Your task to perform on an android device: turn vacation reply on in the gmail app Image 0: 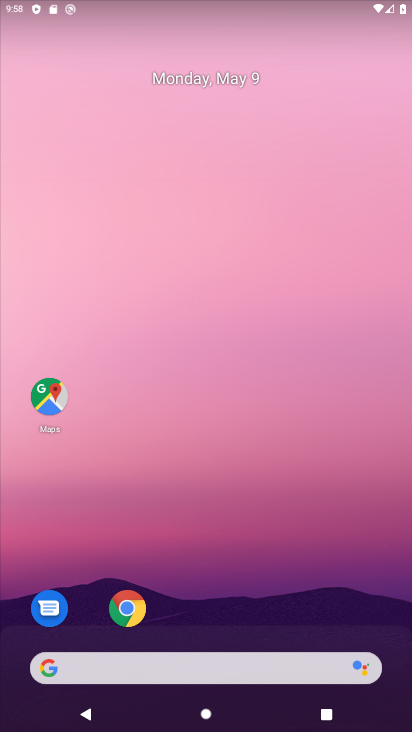
Step 0: drag from (224, 617) to (211, 51)
Your task to perform on an android device: turn vacation reply on in the gmail app Image 1: 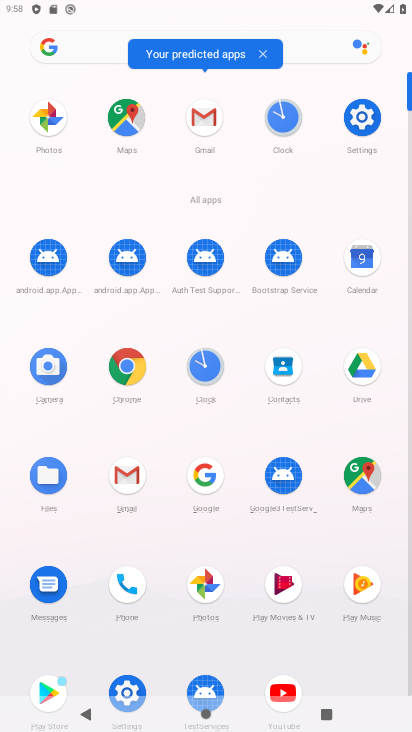
Step 1: click (209, 134)
Your task to perform on an android device: turn vacation reply on in the gmail app Image 2: 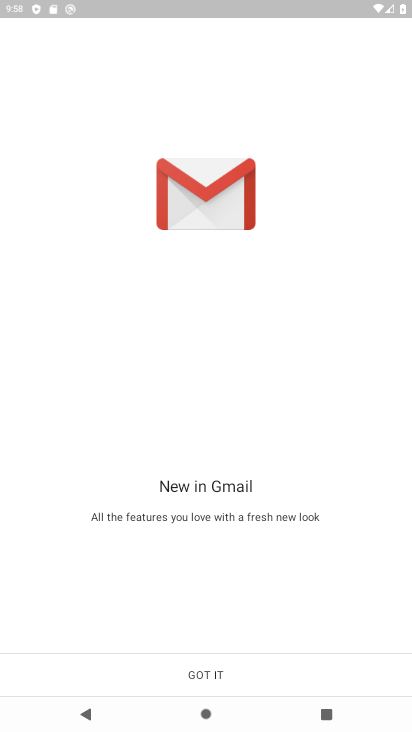
Step 2: click (206, 682)
Your task to perform on an android device: turn vacation reply on in the gmail app Image 3: 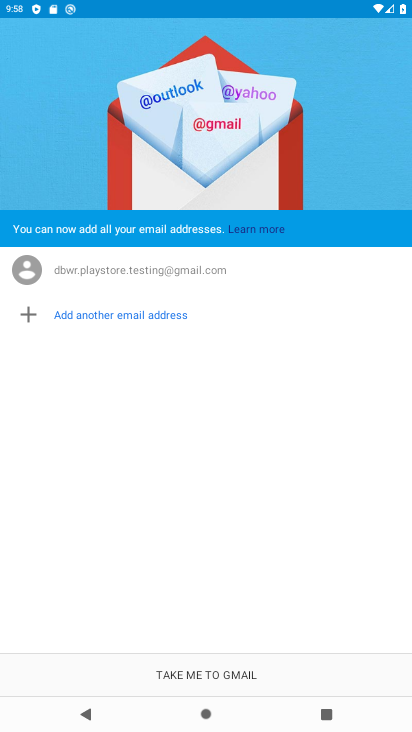
Step 3: click (206, 682)
Your task to perform on an android device: turn vacation reply on in the gmail app Image 4: 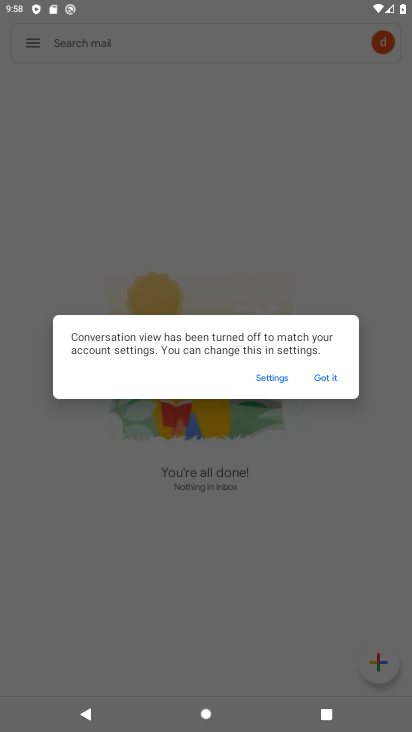
Step 4: press home button
Your task to perform on an android device: turn vacation reply on in the gmail app Image 5: 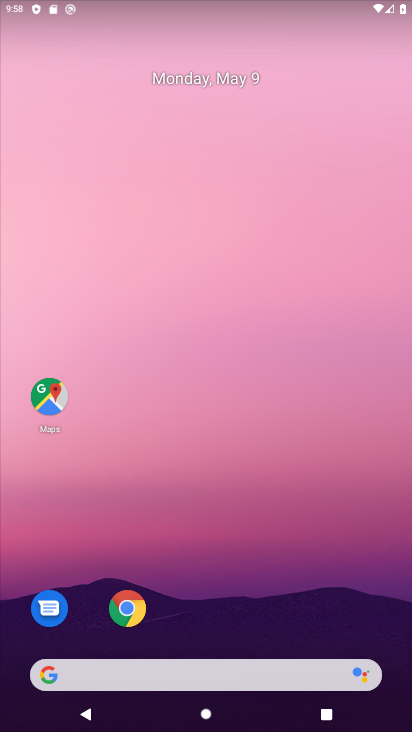
Step 5: drag from (197, 538) to (266, 43)
Your task to perform on an android device: turn vacation reply on in the gmail app Image 6: 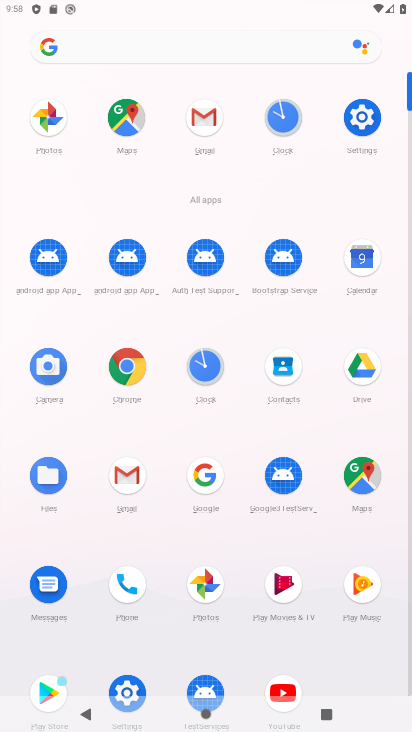
Step 6: click (201, 113)
Your task to perform on an android device: turn vacation reply on in the gmail app Image 7: 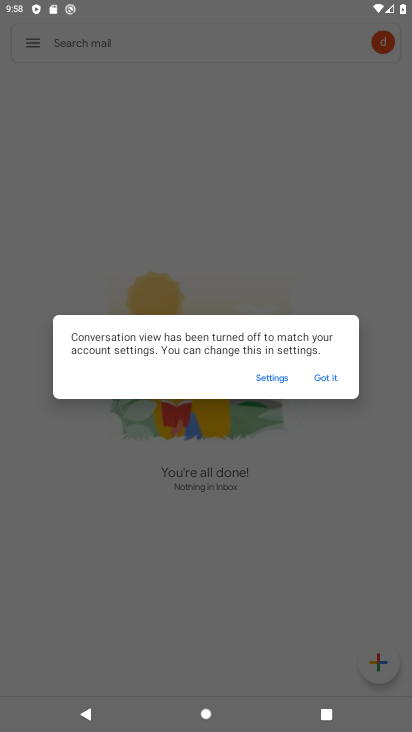
Step 7: click (332, 383)
Your task to perform on an android device: turn vacation reply on in the gmail app Image 8: 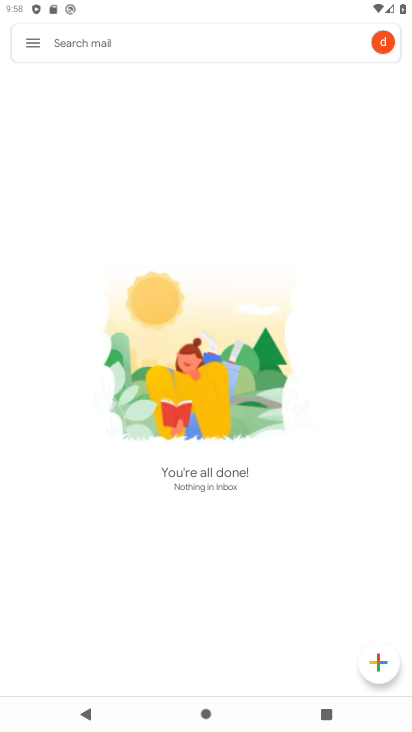
Step 8: click (29, 40)
Your task to perform on an android device: turn vacation reply on in the gmail app Image 9: 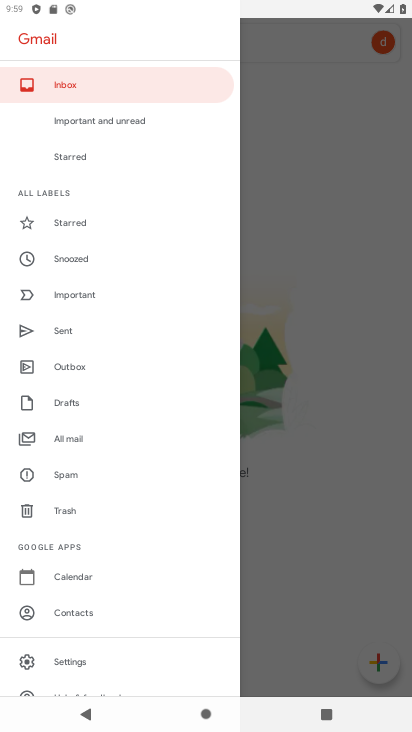
Step 9: click (79, 660)
Your task to perform on an android device: turn vacation reply on in the gmail app Image 10: 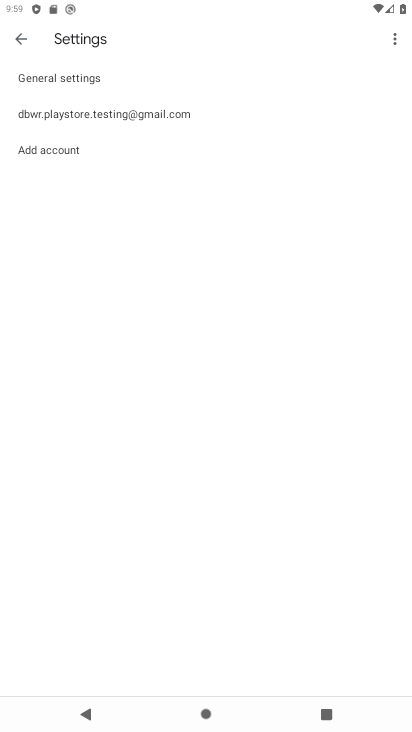
Step 10: click (76, 114)
Your task to perform on an android device: turn vacation reply on in the gmail app Image 11: 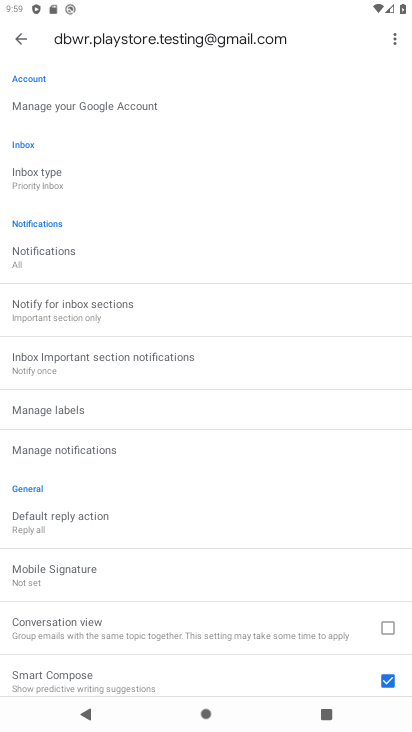
Step 11: drag from (97, 586) to (211, 175)
Your task to perform on an android device: turn vacation reply on in the gmail app Image 12: 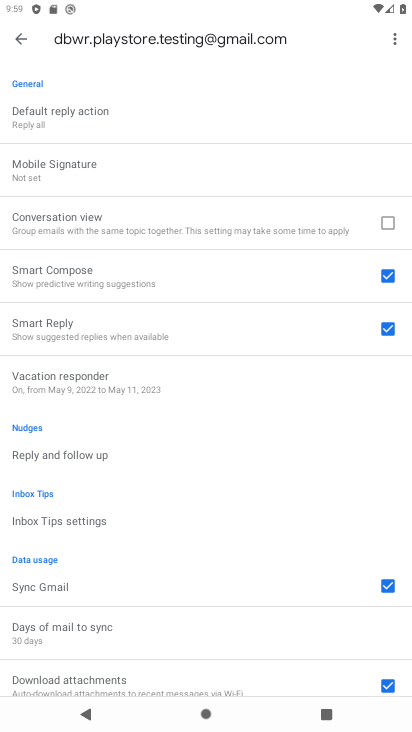
Step 12: click (132, 375)
Your task to perform on an android device: turn vacation reply on in the gmail app Image 13: 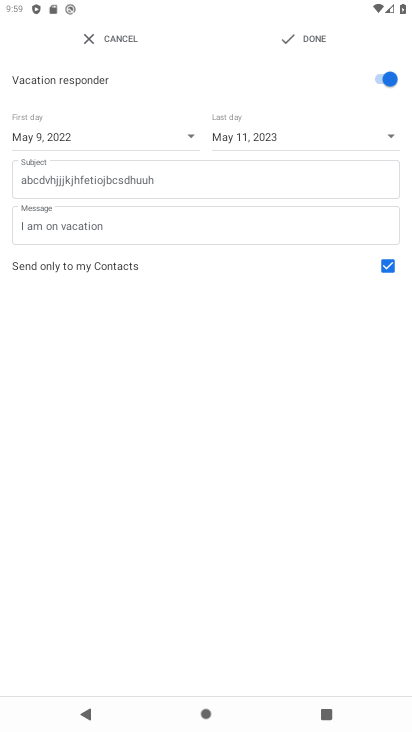
Step 13: task complete